Your task to perform on an android device: Open the stopwatch Image 0: 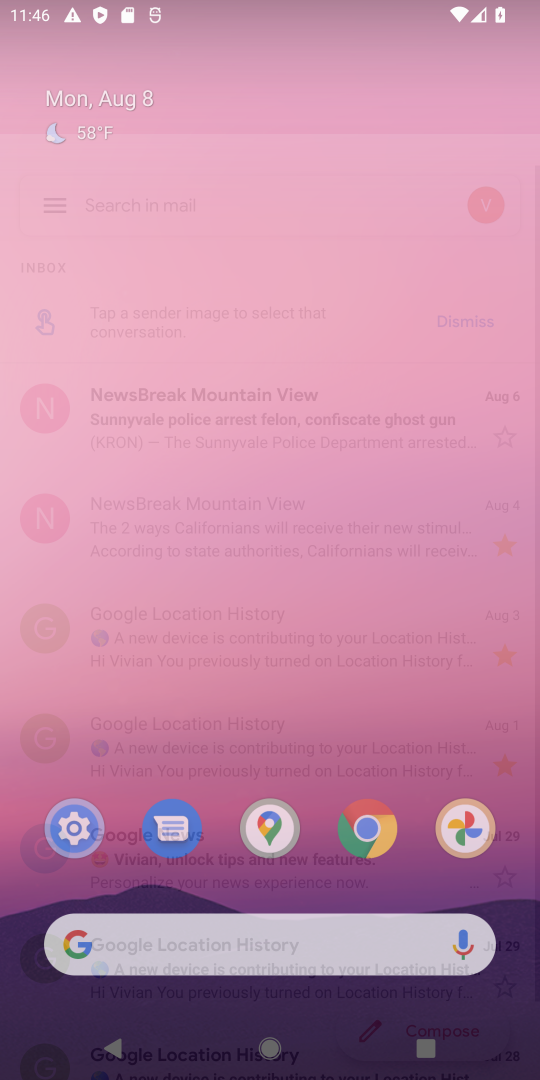
Step 0: press home button
Your task to perform on an android device: Open the stopwatch Image 1: 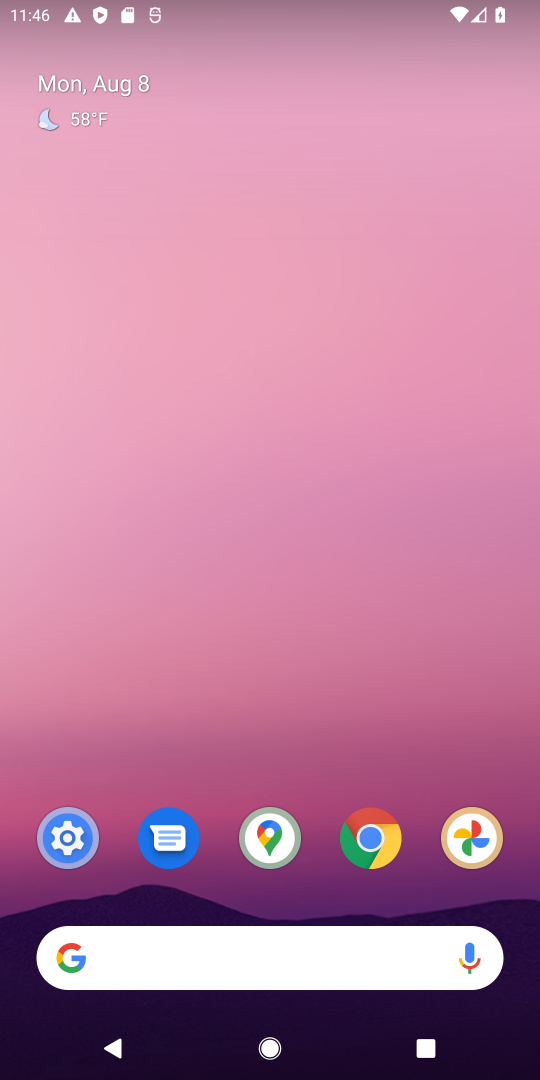
Step 1: drag from (328, 891) to (260, 191)
Your task to perform on an android device: Open the stopwatch Image 2: 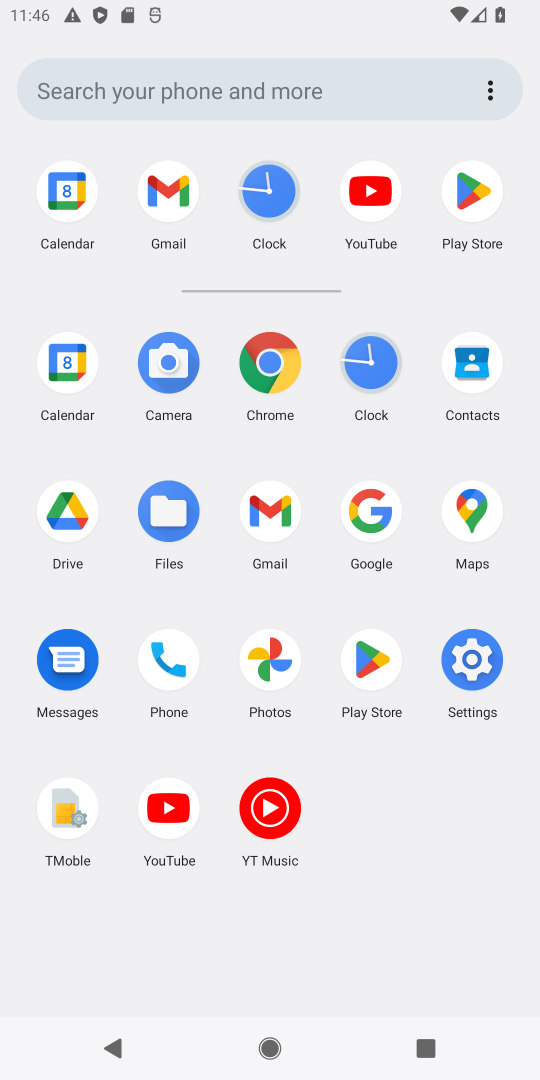
Step 2: click (372, 381)
Your task to perform on an android device: Open the stopwatch Image 3: 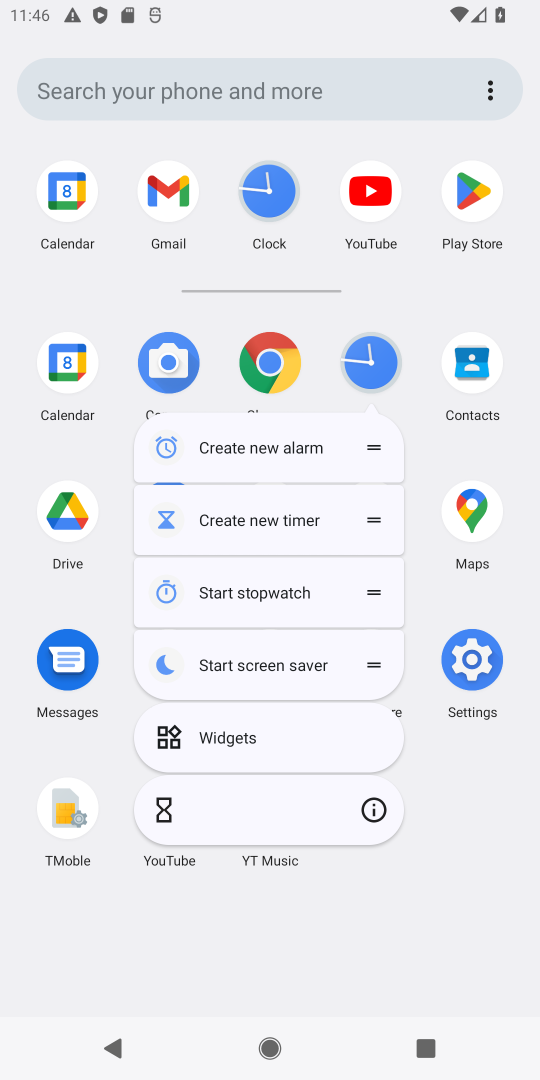
Step 3: click (372, 381)
Your task to perform on an android device: Open the stopwatch Image 4: 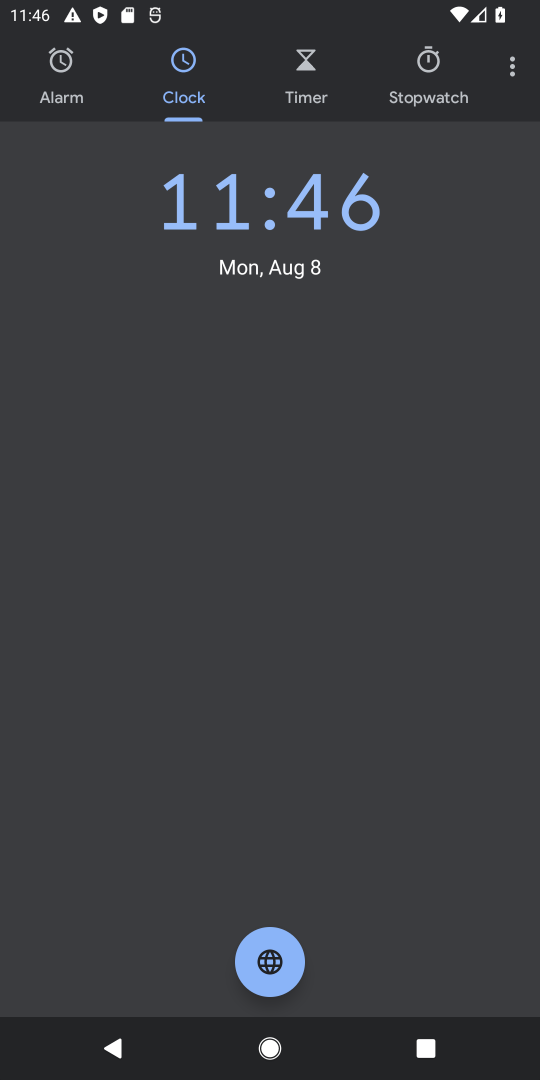
Step 4: click (429, 64)
Your task to perform on an android device: Open the stopwatch Image 5: 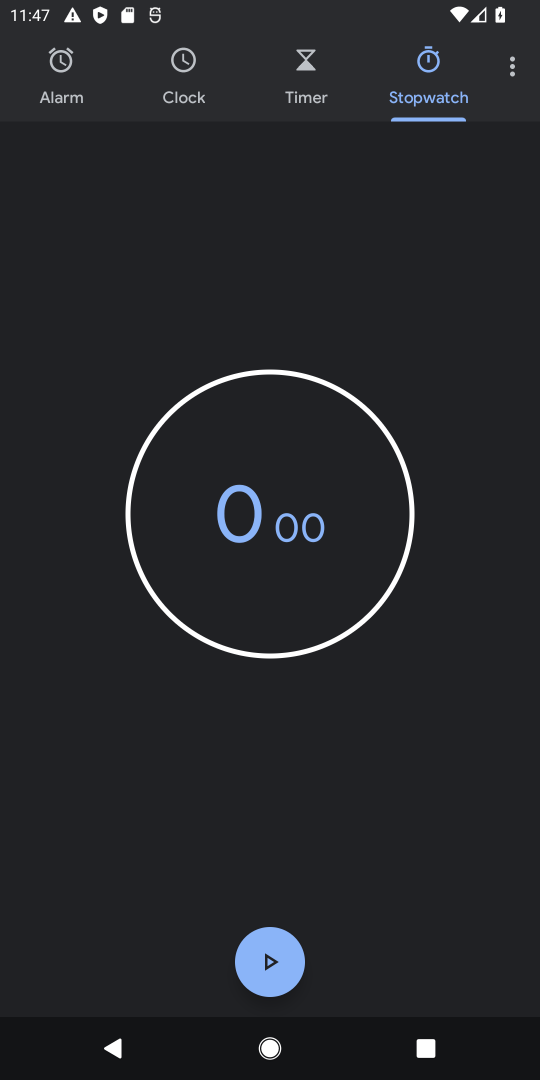
Step 5: task complete